Your task to perform on an android device: Go to Wikipedia Image 0: 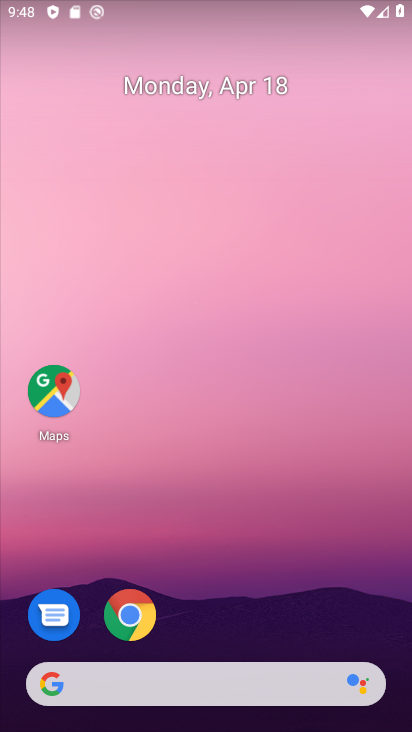
Step 0: click (128, 609)
Your task to perform on an android device: Go to Wikipedia Image 1: 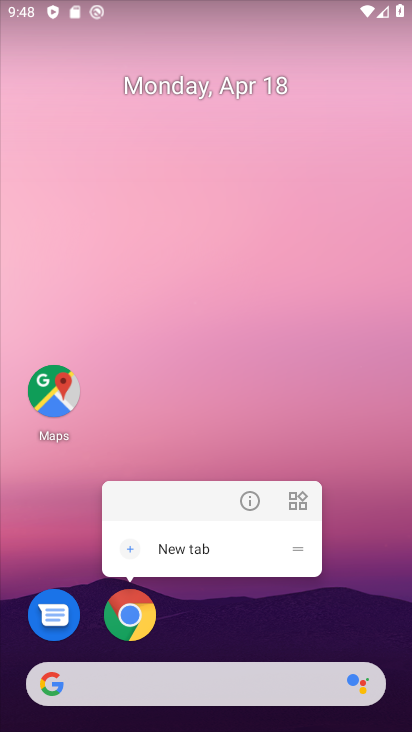
Step 1: click (129, 615)
Your task to perform on an android device: Go to Wikipedia Image 2: 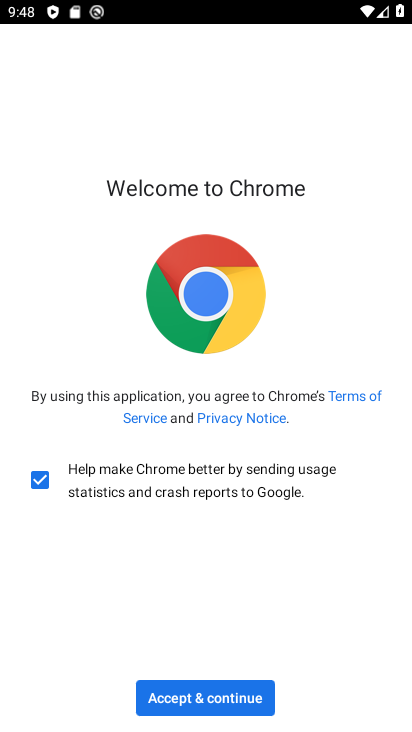
Step 2: click (158, 686)
Your task to perform on an android device: Go to Wikipedia Image 3: 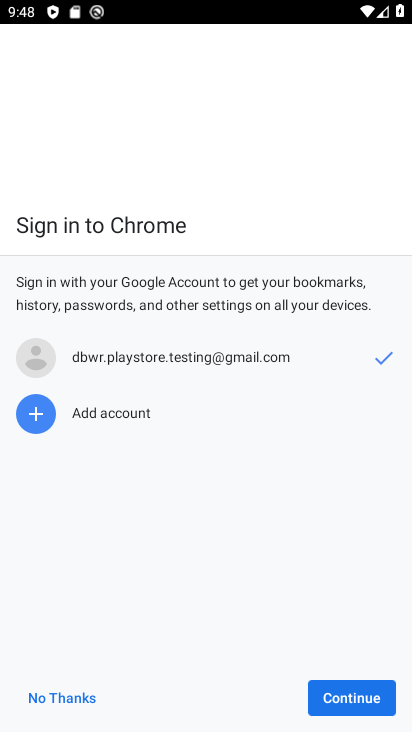
Step 3: click (39, 701)
Your task to perform on an android device: Go to Wikipedia Image 4: 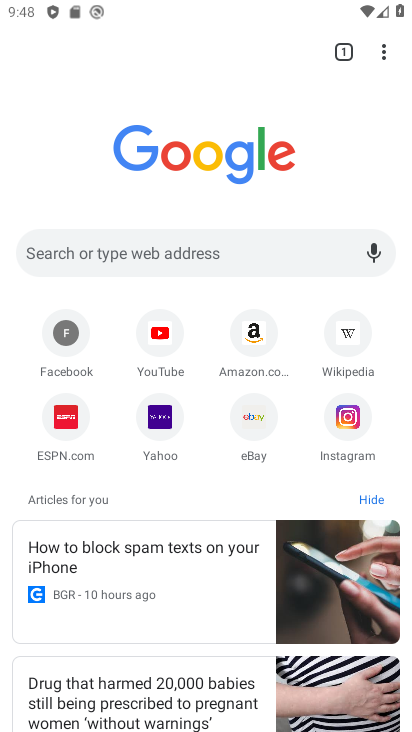
Step 4: click (342, 342)
Your task to perform on an android device: Go to Wikipedia Image 5: 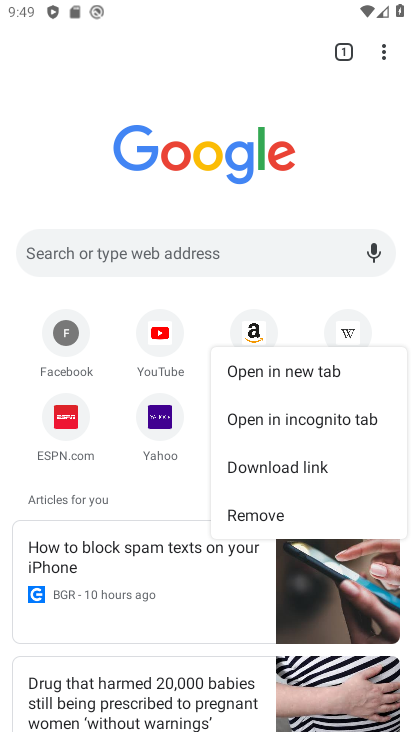
Step 5: click (350, 328)
Your task to perform on an android device: Go to Wikipedia Image 6: 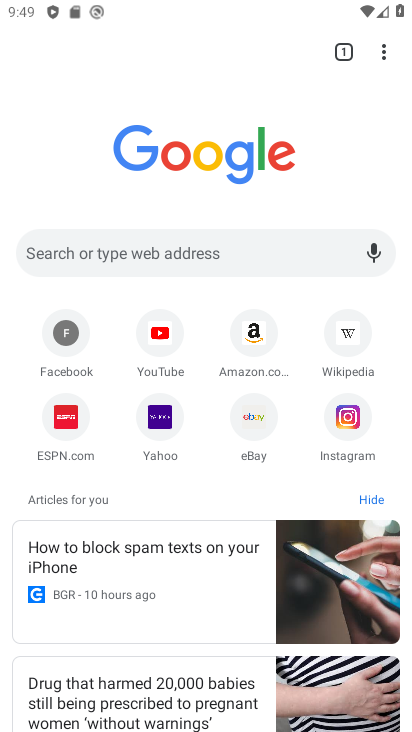
Step 6: click (350, 328)
Your task to perform on an android device: Go to Wikipedia Image 7: 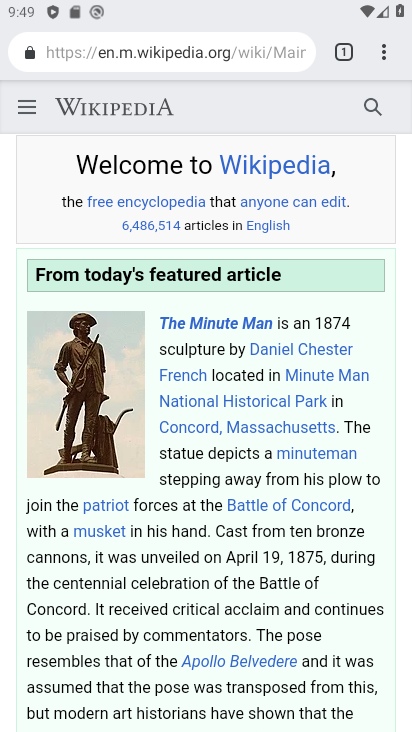
Step 7: task complete